Your task to perform on an android device: search for starred emails in the gmail app Image 0: 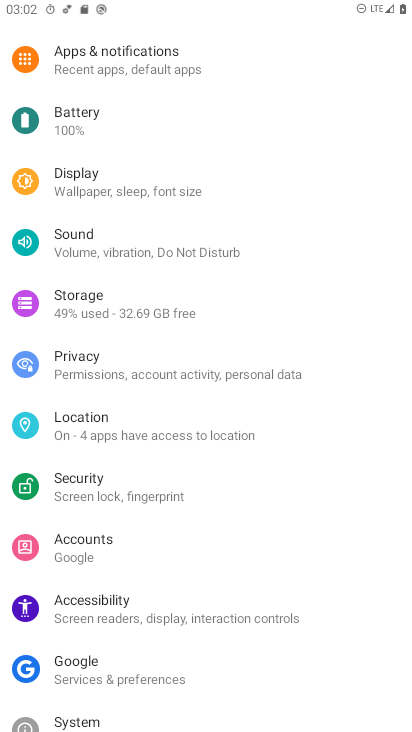
Step 0: press home button
Your task to perform on an android device: search for starred emails in the gmail app Image 1: 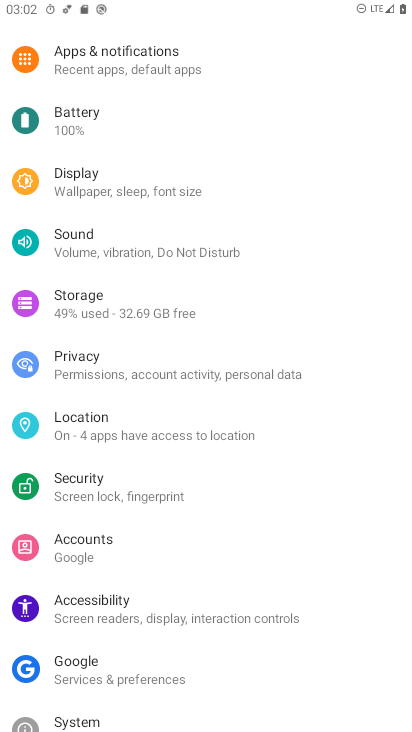
Step 1: press home button
Your task to perform on an android device: search for starred emails in the gmail app Image 2: 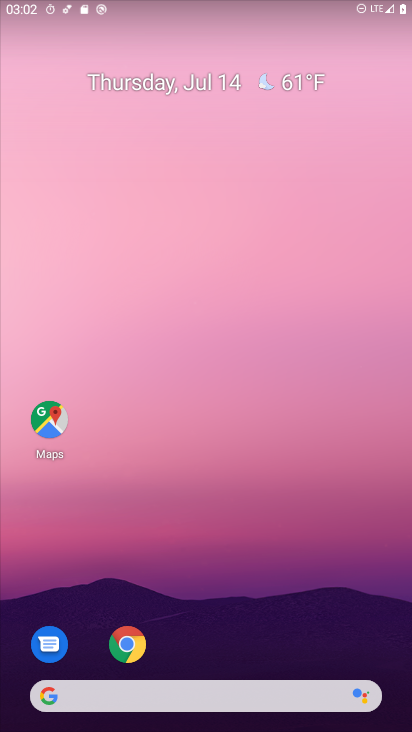
Step 2: drag from (234, 638) to (199, 140)
Your task to perform on an android device: search for starred emails in the gmail app Image 3: 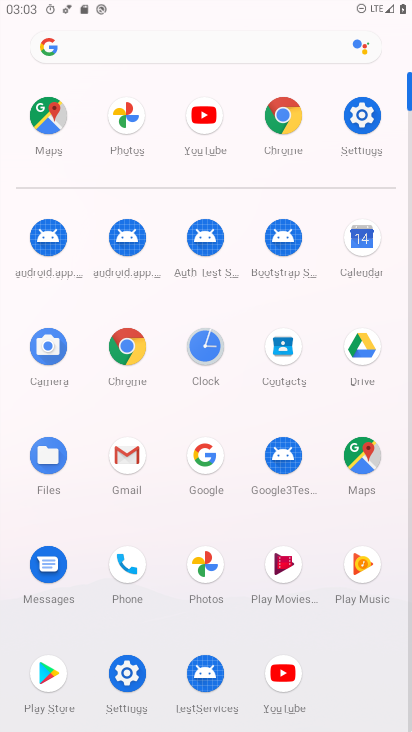
Step 3: click (125, 455)
Your task to perform on an android device: search for starred emails in the gmail app Image 4: 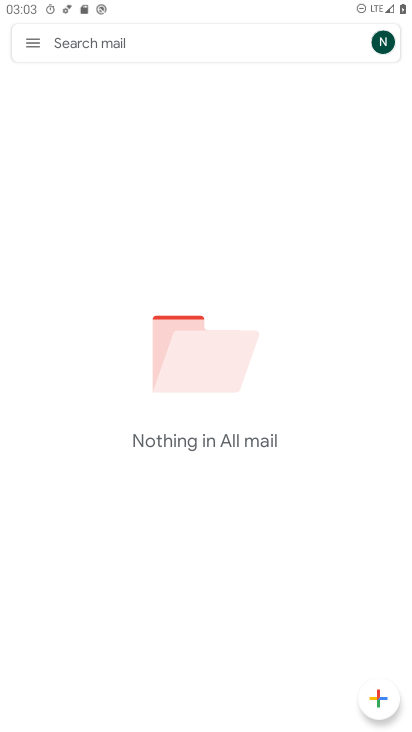
Step 4: click (37, 43)
Your task to perform on an android device: search for starred emails in the gmail app Image 5: 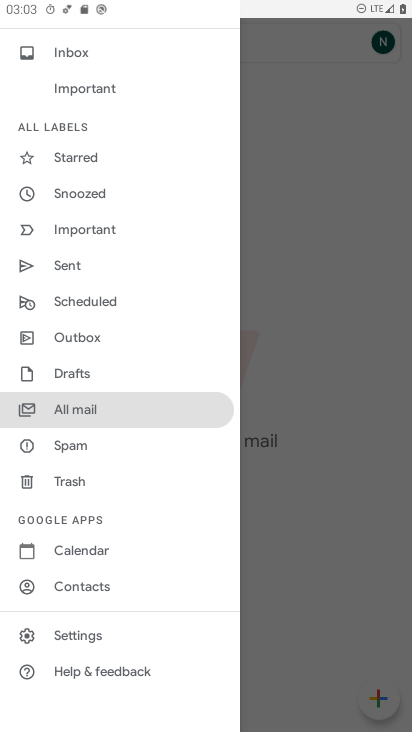
Step 5: click (89, 162)
Your task to perform on an android device: search for starred emails in the gmail app Image 6: 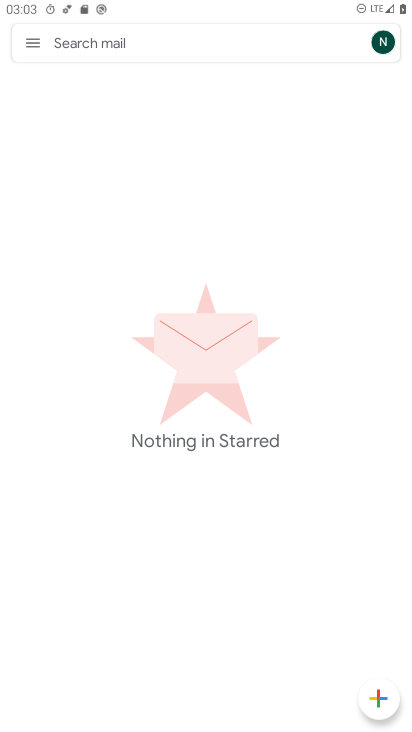
Step 6: task complete